Your task to perform on an android device: Open Google Maps Image 0: 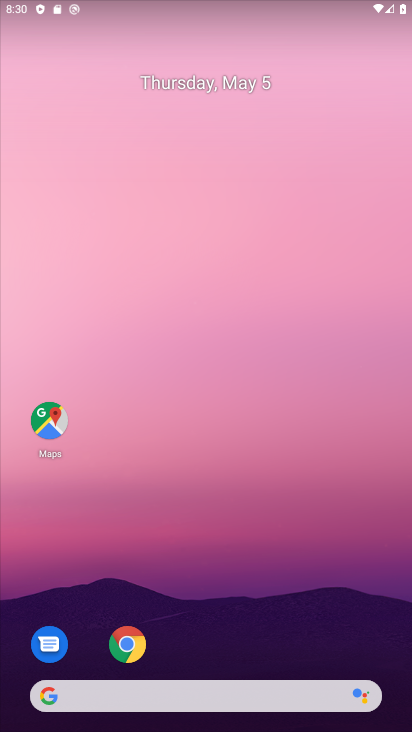
Step 0: drag from (321, 467) to (20, 424)
Your task to perform on an android device: Open Google Maps Image 1: 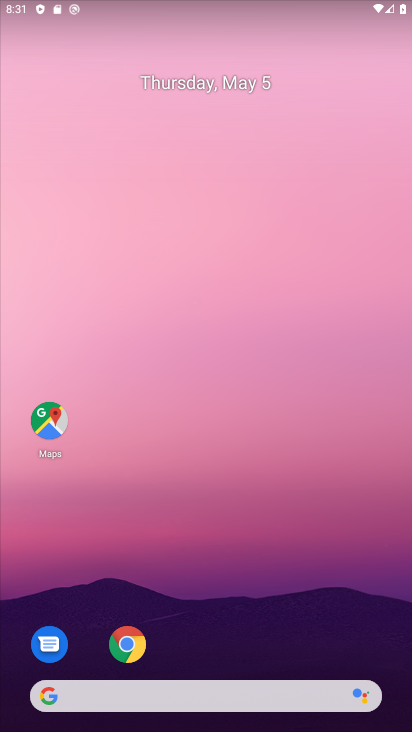
Step 1: drag from (343, 511) to (140, 43)
Your task to perform on an android device: Open Google Maps Image 2: 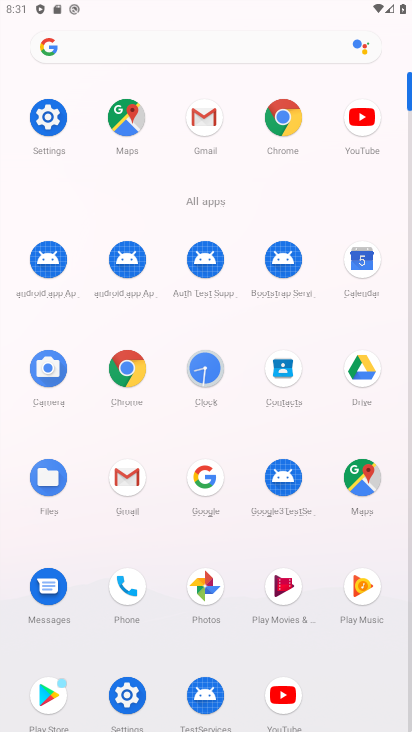
Step 2: click (114, 105)
Your task to perform on an android device: Open Google Maps Image 3: 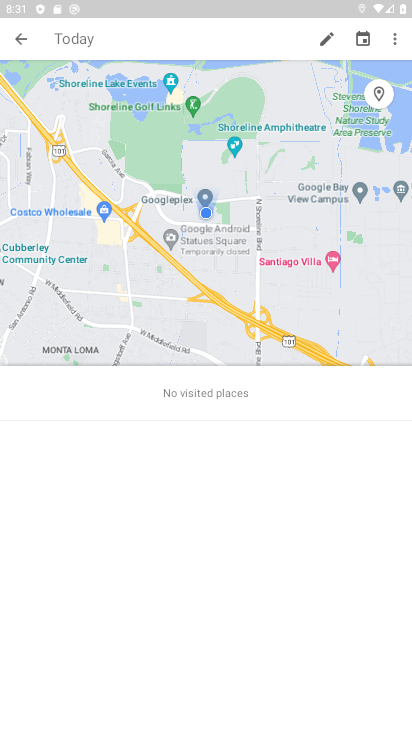
Step 3: task complete